Your task to perform on an android device: Check the weather Image 0: 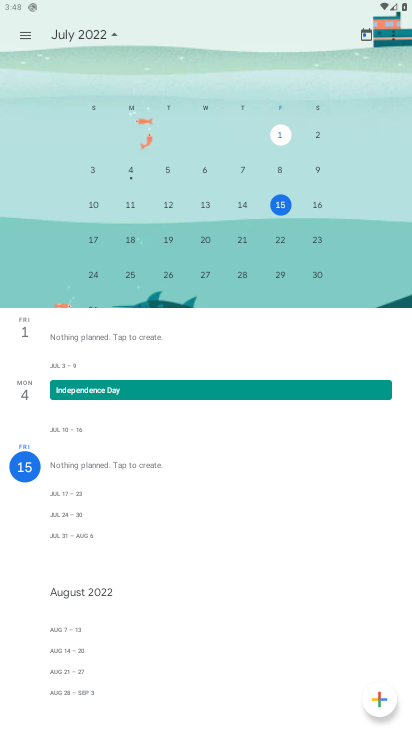
Step 0: press home button
Your task to perform on an android device: Check the weather Image 1: 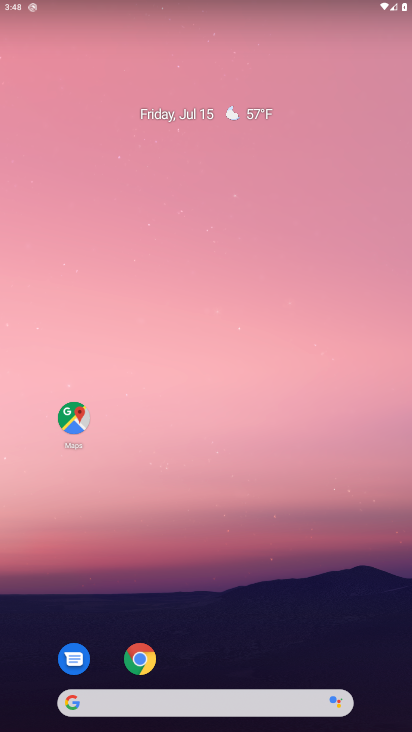
Step 1: click (92, 702)
Your task to perform on an android device: Check the weather Image 2: 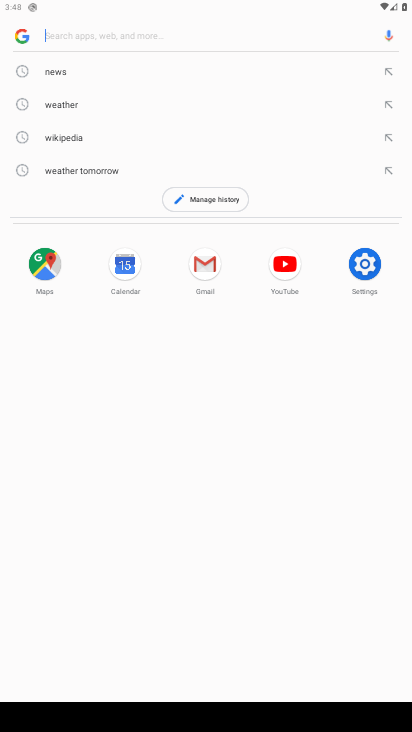
Step 2: click (73, 107)
Your task to perform on an android device: Check the weather Image 3: 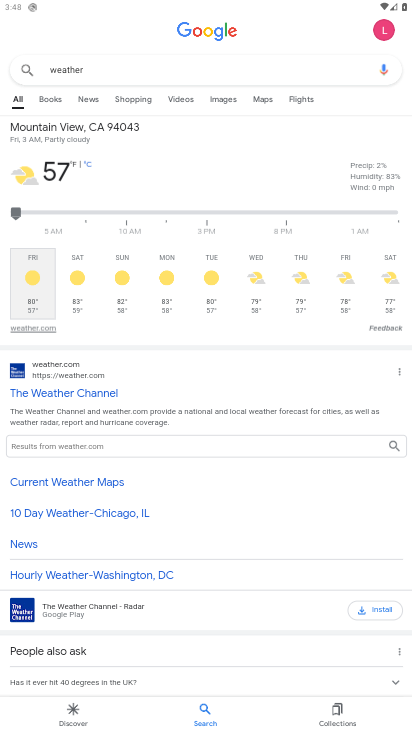
Step 3: task complete